Your task to perform on an android device: turn off translation in the chrome app Image 0: 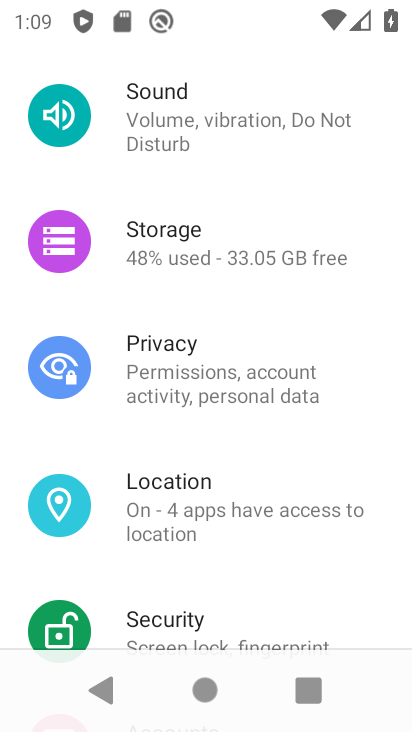
Step 0: press home button
Your task to perform on an android device: turn off translation in the chrome app Image 1: 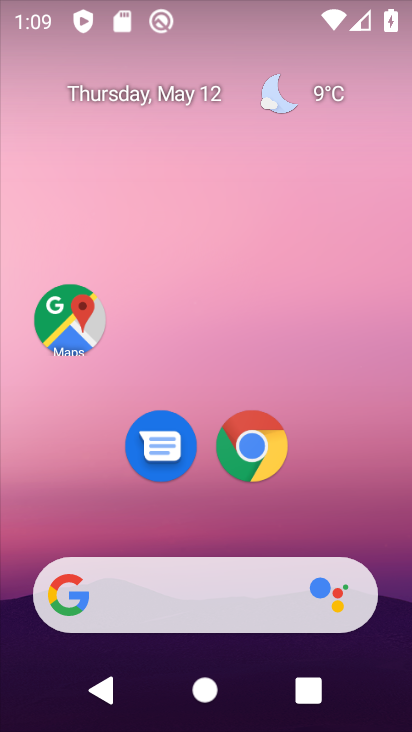
Step 1: click (256, 466)
Your task to perform on an android device: turn off translation in the chrome app Image 2: 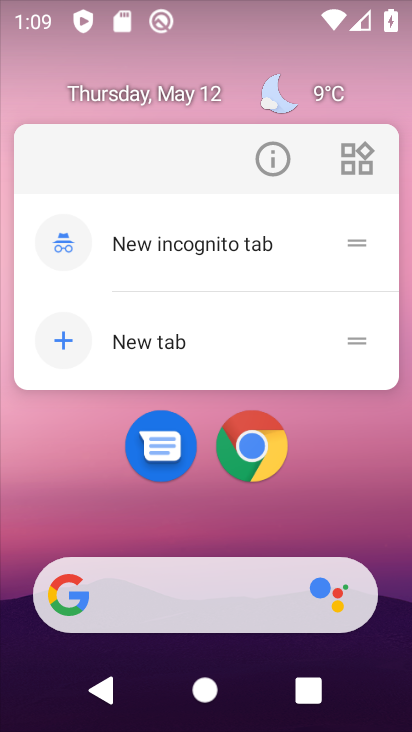
Step 2: click (257, 460)
Your task to perform on an android device: turn off translation in the chrome app Image 3: 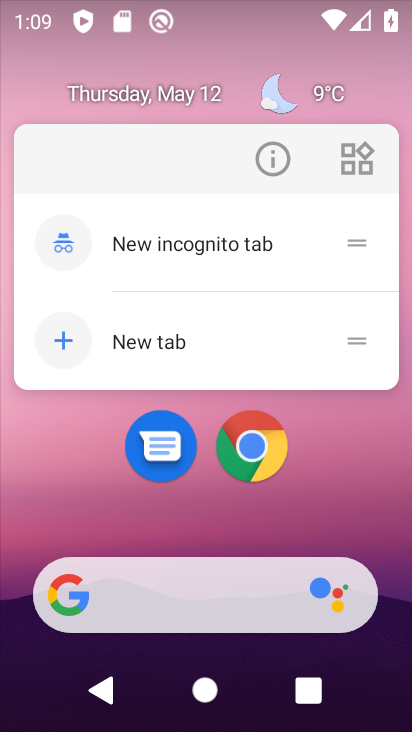
Step 3: click (256, 439)
Your task to perform on an android device: turn off translation in the chrome app Image 4: 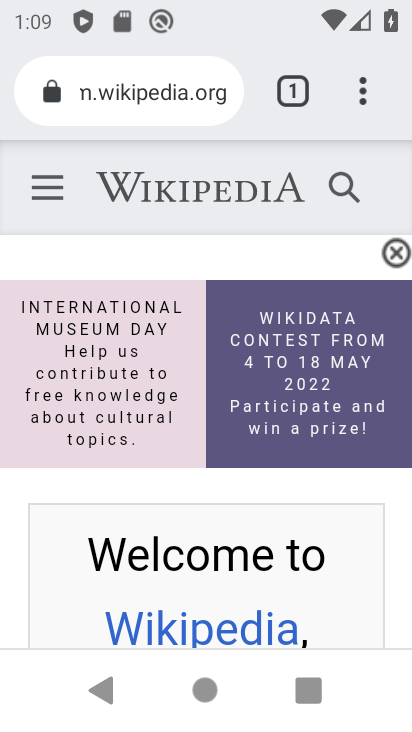
Step 4: drag from (364, 100) to (301, 500)
Your task to perform on an android device: turn off translation in the chrome app Image 5: 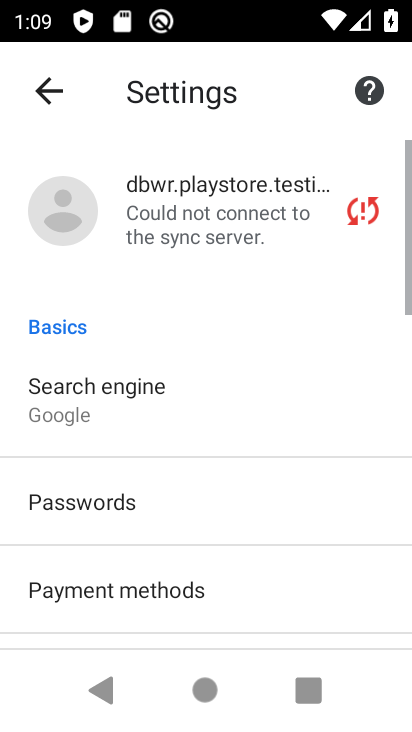
Step 5: drag from (171, 577) to (289, 200)
Your task to perform on an android device: turn off translation in the chrome app Image 6: 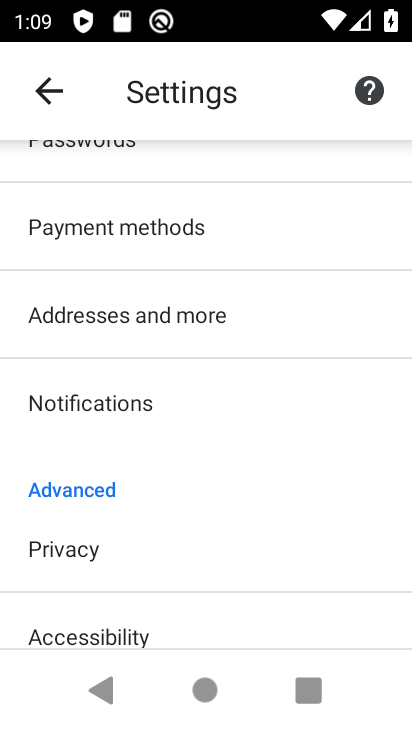
Step 6: drag from (165, 553) to (282, 227)
Your task to perform on an android device: turn off translation in the chrome app Image 7: 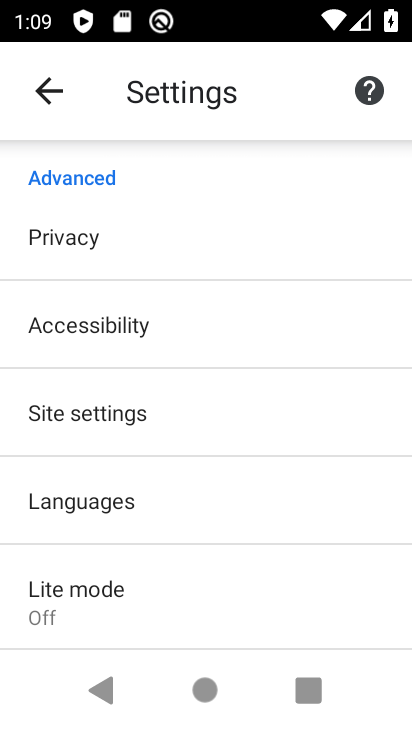
Step 7: click (180, 512)
Your task to perform on an android device: turn off translation in the chrome app Image 8: 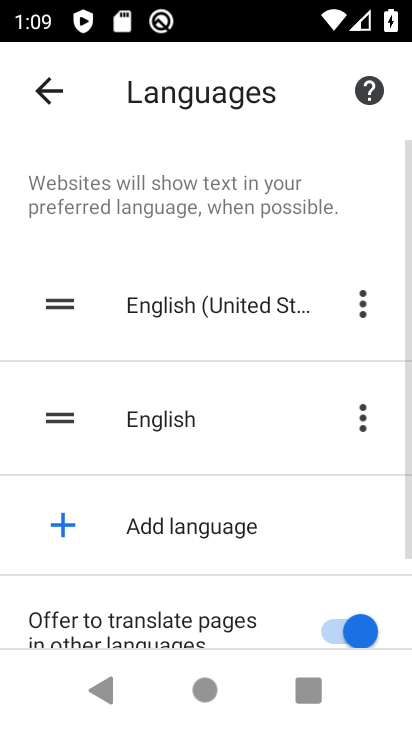
Step 8: drag from (220, 543) to (297, 225)
Your task to perform on an android device: turn off translation in the chrome app Image 9: 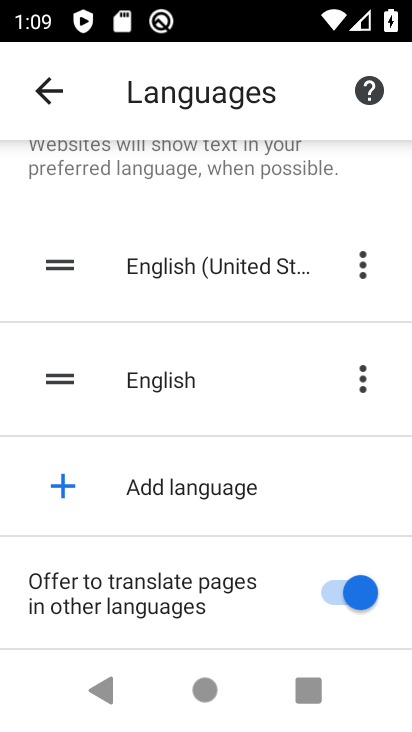
Step 9: click (340, 584)
Your task to perform on an android device: turn off translation in the chrome app Image 10: 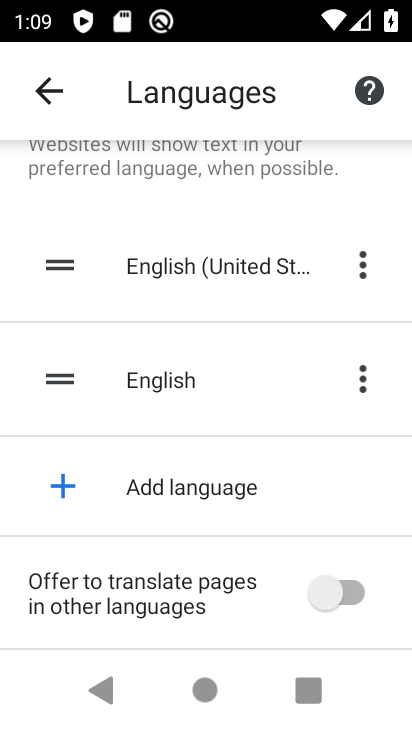
Step 10: task complete